Your task to perform on an android device: Play the last video I watched on Youtube Image 0: 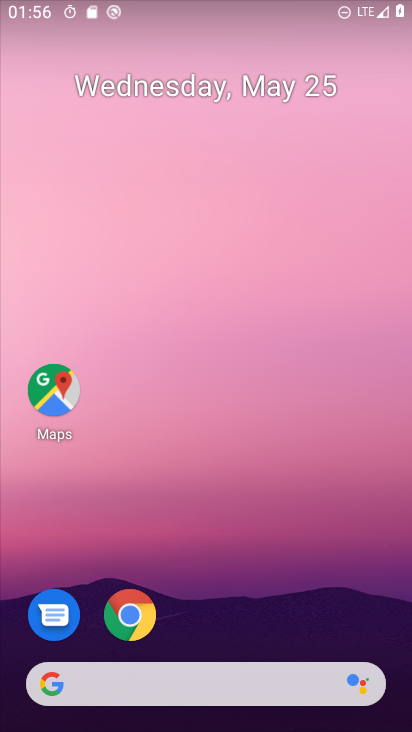
Step 0: drag from (233, 701) to (409, 113)
Your task to perform on an android device: Play the last video I watched on Youtube Image 1: 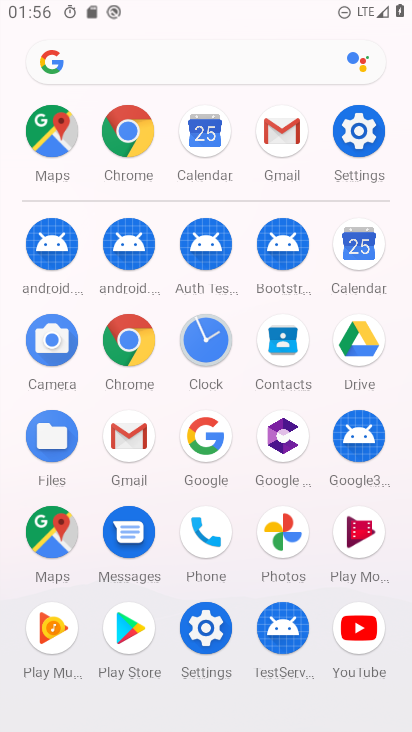
Step 1: click (353, 623)
Your task to perform on an android device: Play the last video I watched on Youtube Image 2: 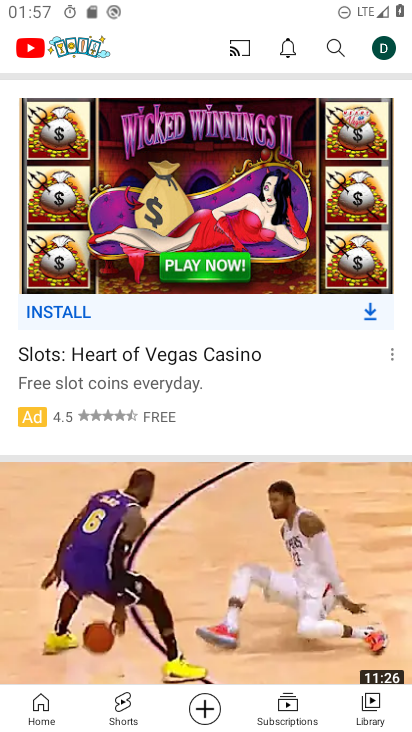
Step 2: click (382, 698)
Your task to perform on an android device: Play the last video I watched on Youtube Image 3: 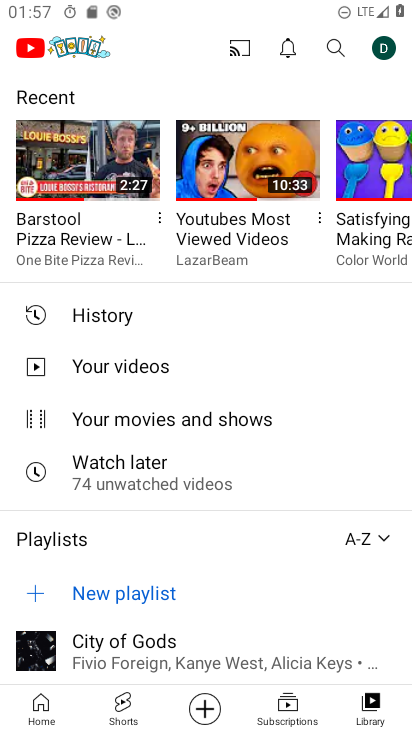
Step 3: click (92, 189)
Your task to perform on an android device: Play the last video I watched on Youtube Image 4: 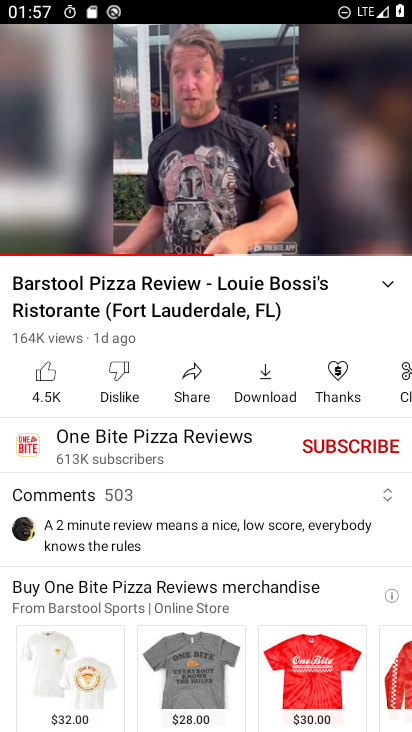
Step 4: task complete